Your task to perform on an android device: Open the phone app and click the voicemail tab. Image 0: 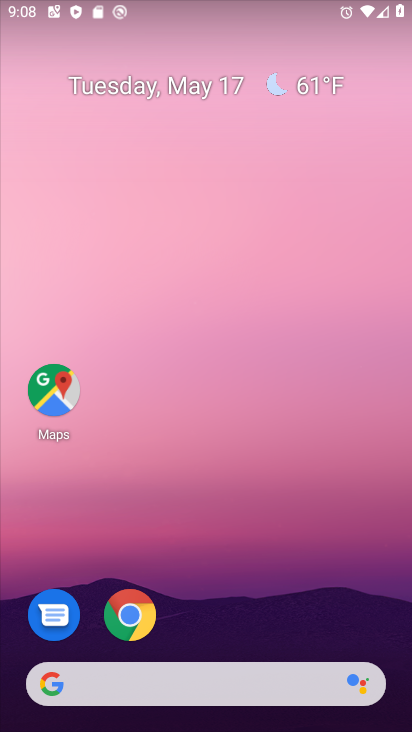
Step 0: drag from (289, 605) to (275, 79)
Your task to perform on an android device: Open the phone app and click the voicemail tab. Image 1: 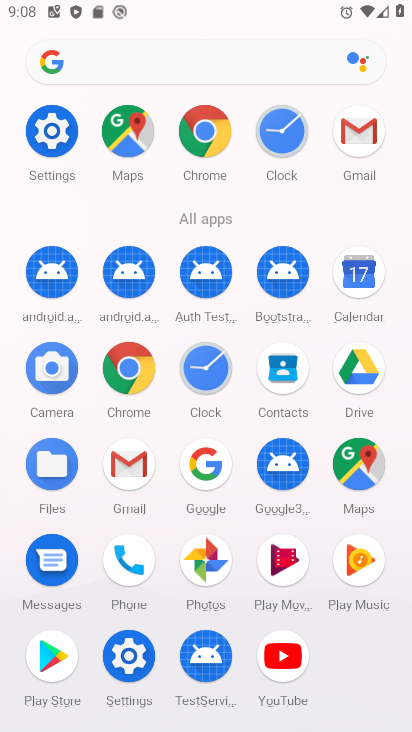
Step 1: click (114, 552)
Your task to perform on an android device: Open the phone app and click the voicemail tab. Image 2: 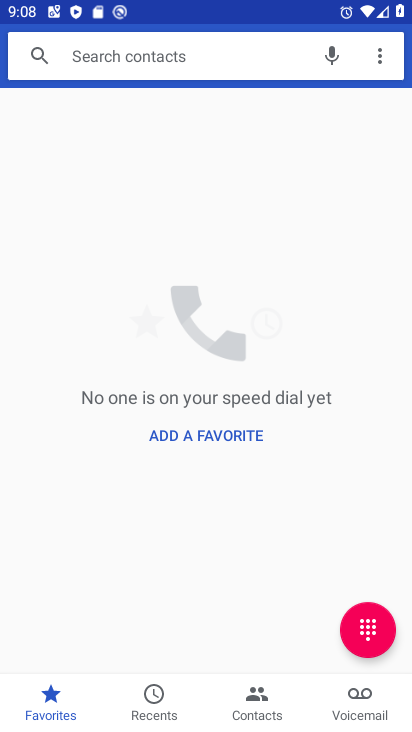
Step 2: click (372, 699)
Your task to perform on an android device: Open the phone app and click the voicemail tab. Image 3: 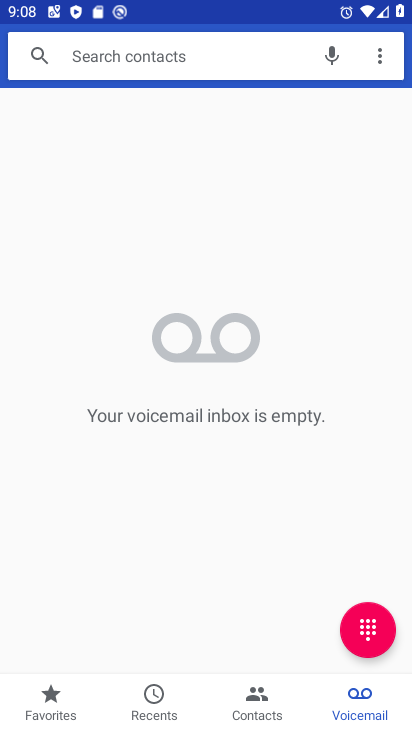
Step 3: task complete